Your task to perform on an android device: Open the web browser Image 0: 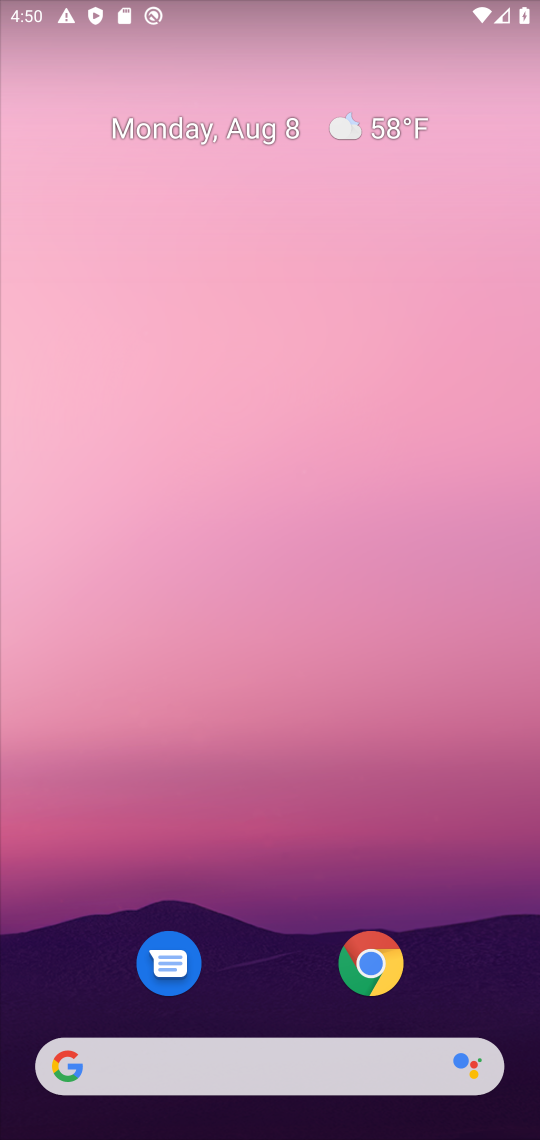
Step 0: click (370, 947)
Your task to perform on an android device: Open the web browser Image 1: 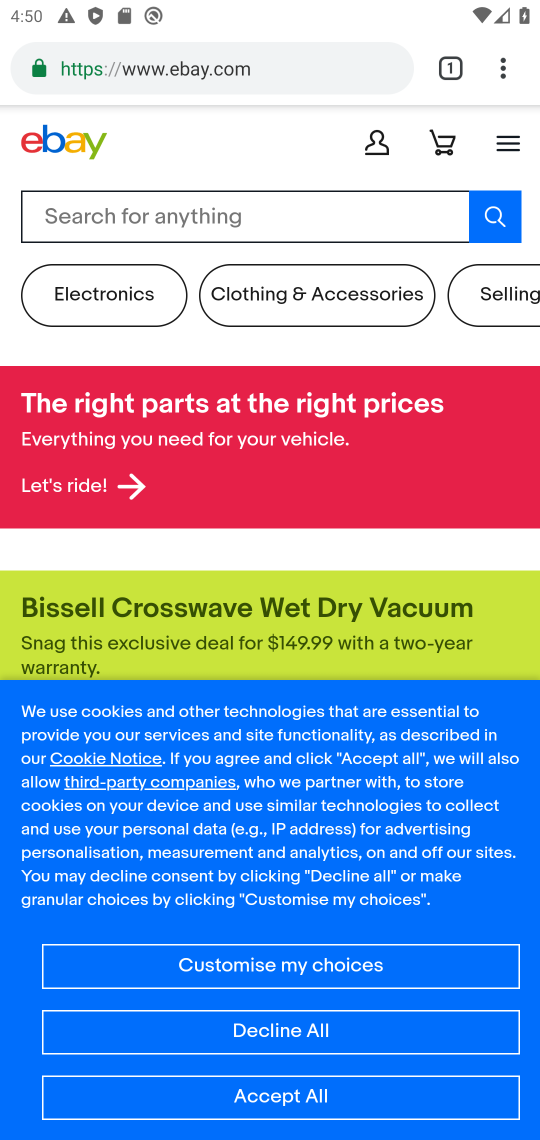
Step 1: task complete